Your task to perform on an android device: Clear all items from cart on amazon. Add "panasonic triple a" to the cart on amazon Image 0: 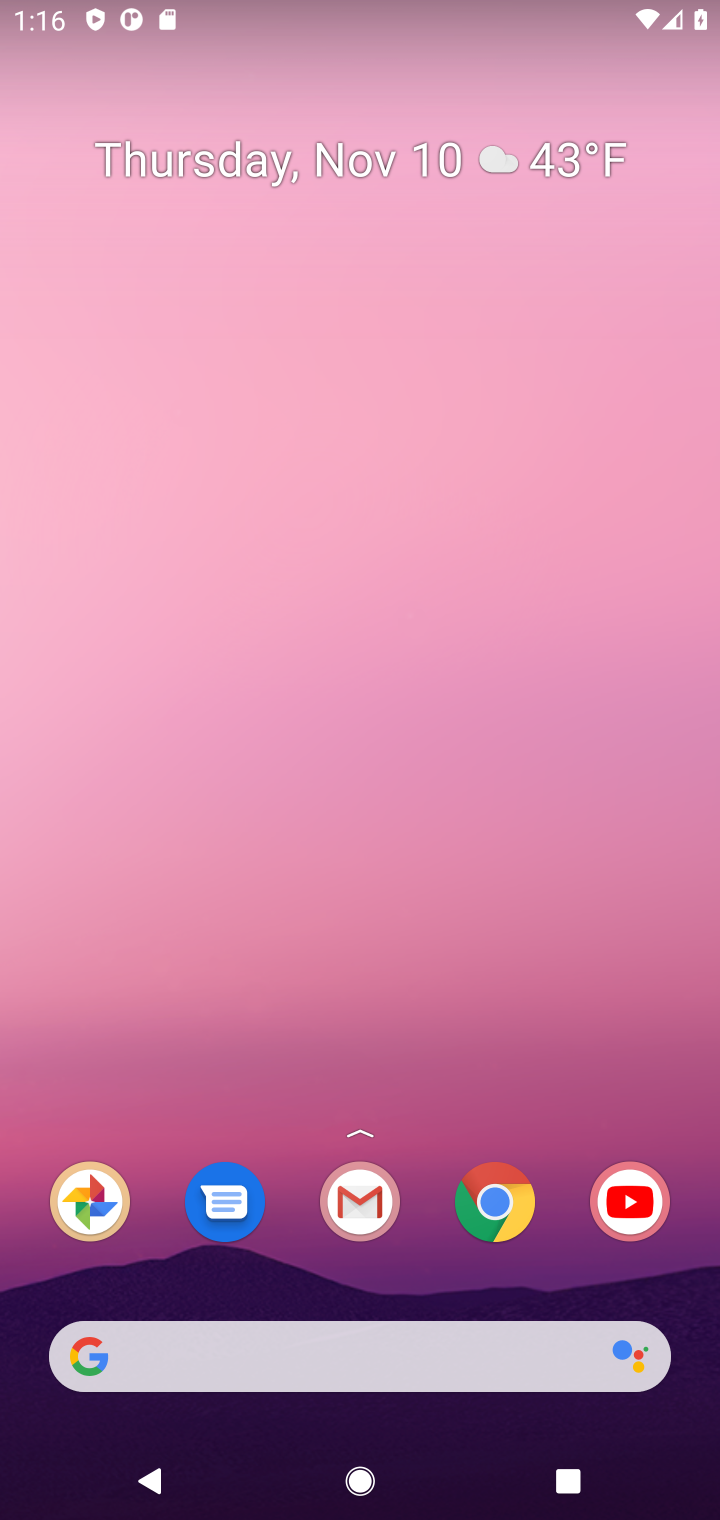
Step 0: click (349, 92)
Your task to perform on an android device: Clear all items from cart on amazon. Add "panasonic triple a" to the cart on amazon Image 1: 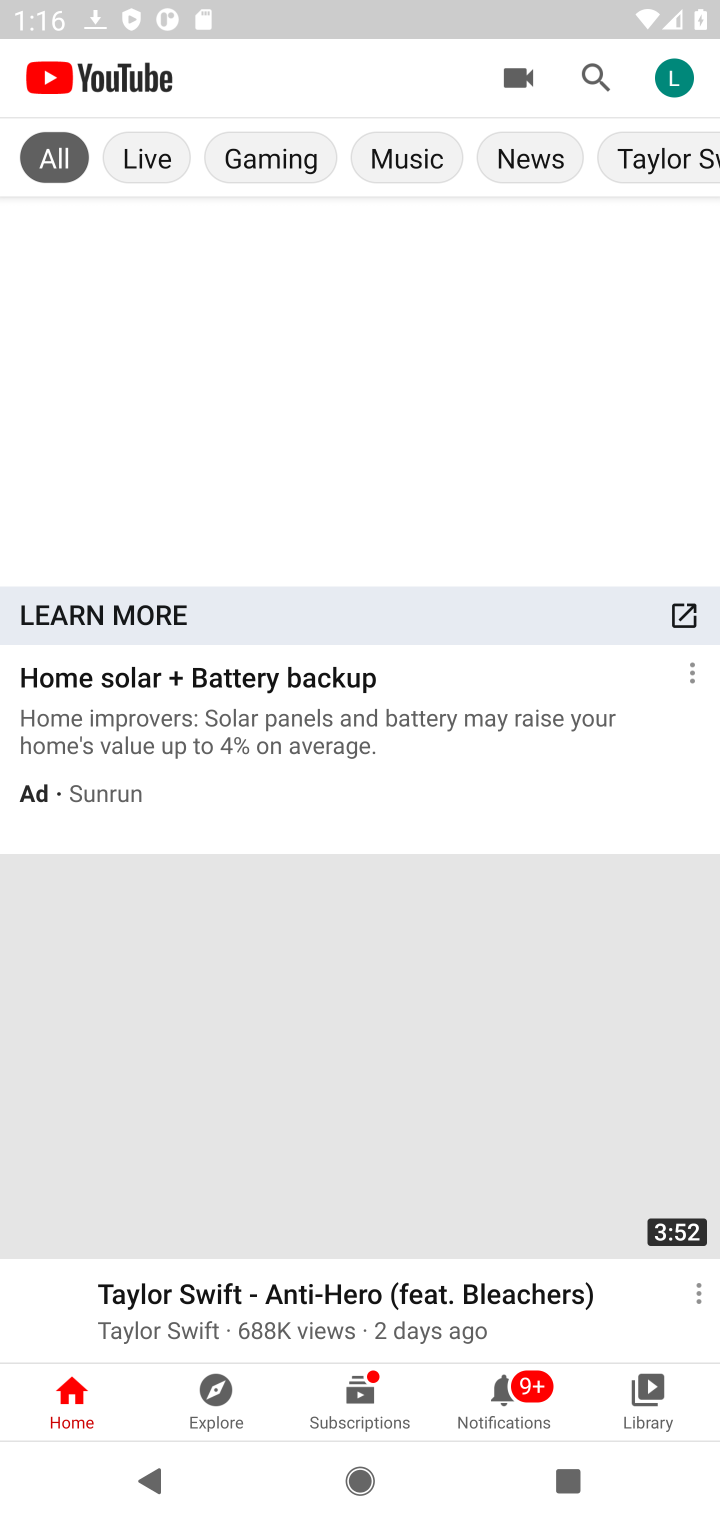
Step 1: press home button
Your task to perform on an android device: Clear all items from cart on amazon. Add "panasonic triple a" to the cart on amazon Image 2: 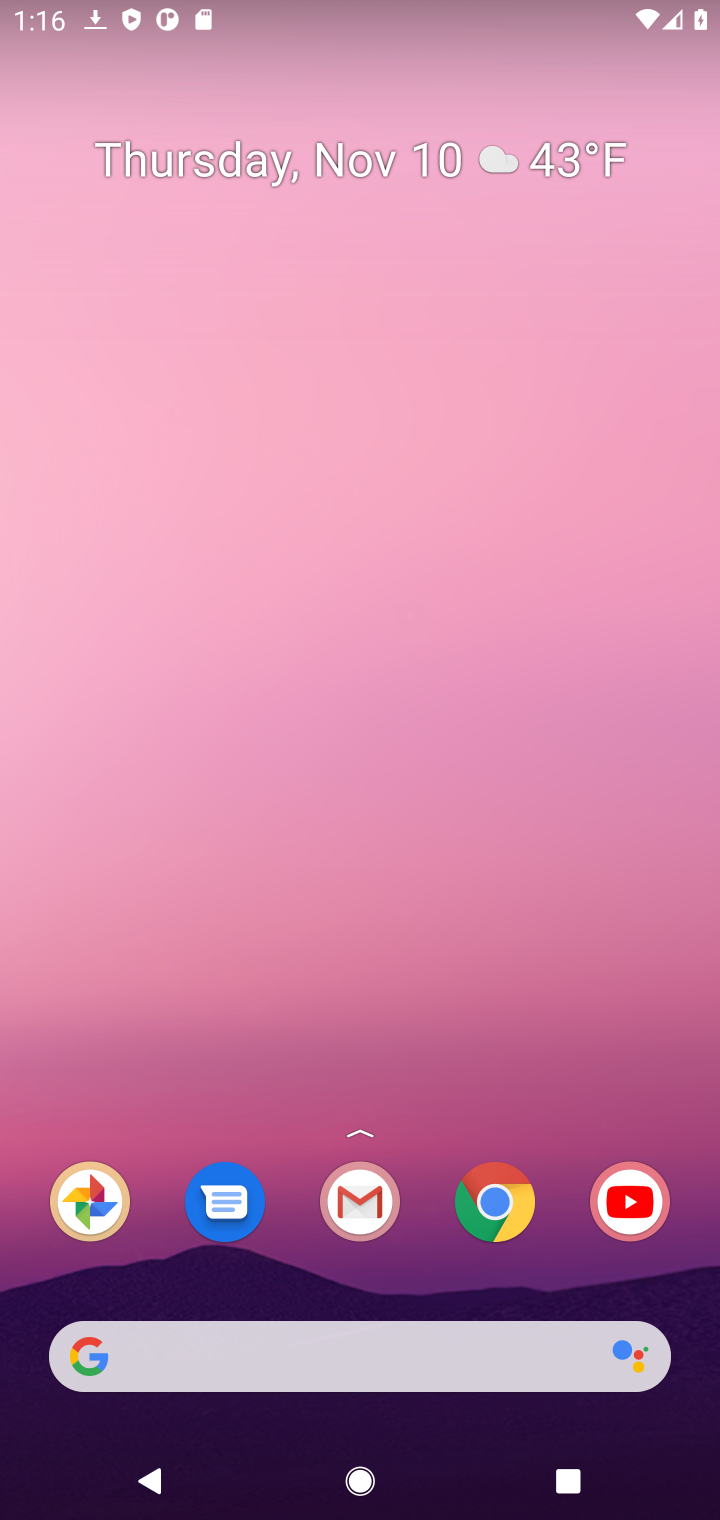
Step 2: click (486, 1193)
Your task to perform on an android device: Clear all items from cart on amazon. Add "panasonic triple a" to the cart on amazon Image 3: 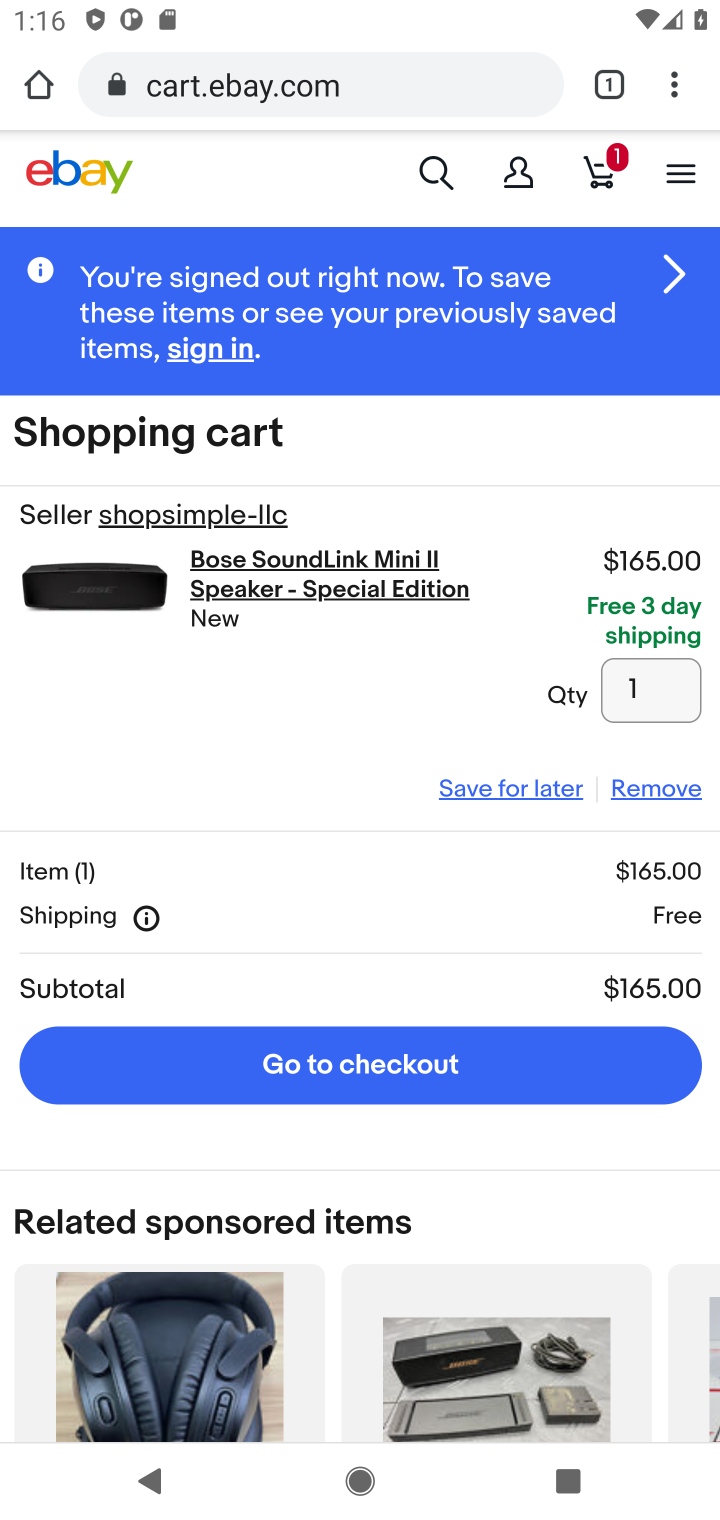
Step 3: click (459, 74)
Your task to perform on an android device: Clear all items from cart on amazon. Add "panasonic triple a" to the cart on amazon Image 4: 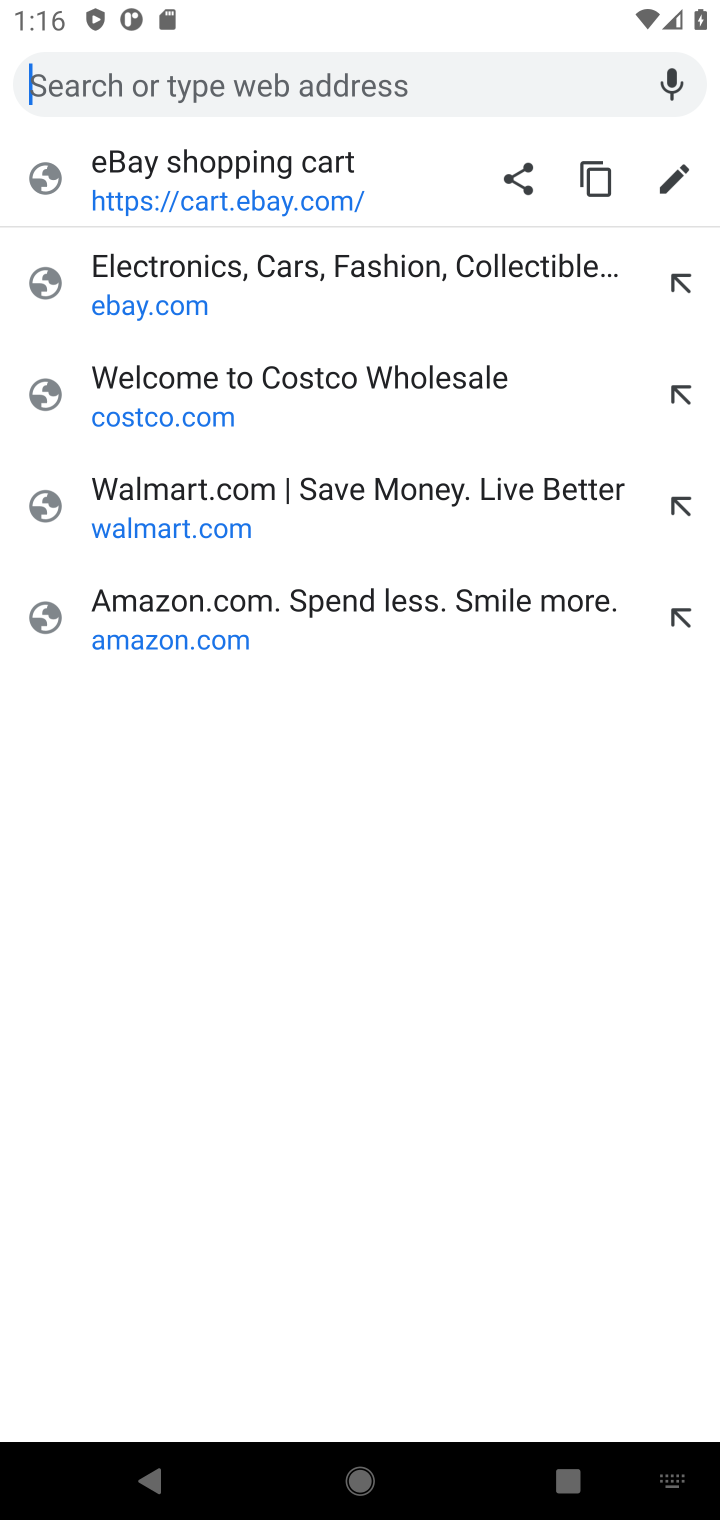
Step 4: type "amazon"
Your task to perform on an android device: Clear all items from cart on amazon. Add "panasonic triple a" to the cart on amazon Image 5: 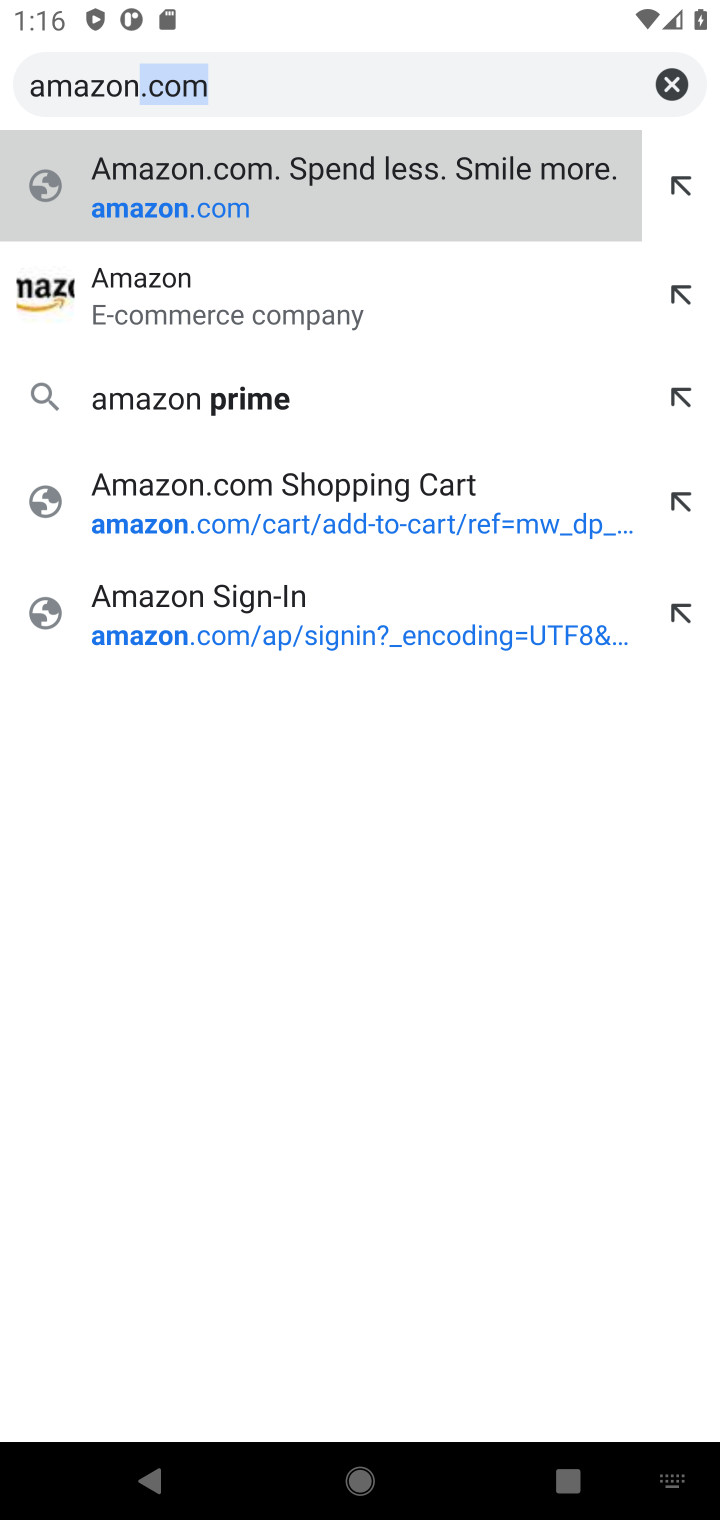
Step 5: click (488, 92)
Your task to perform on an android device: Clear all items from cart on amazon. Add "panasonic triple a" to the cart on amazon Image 6: 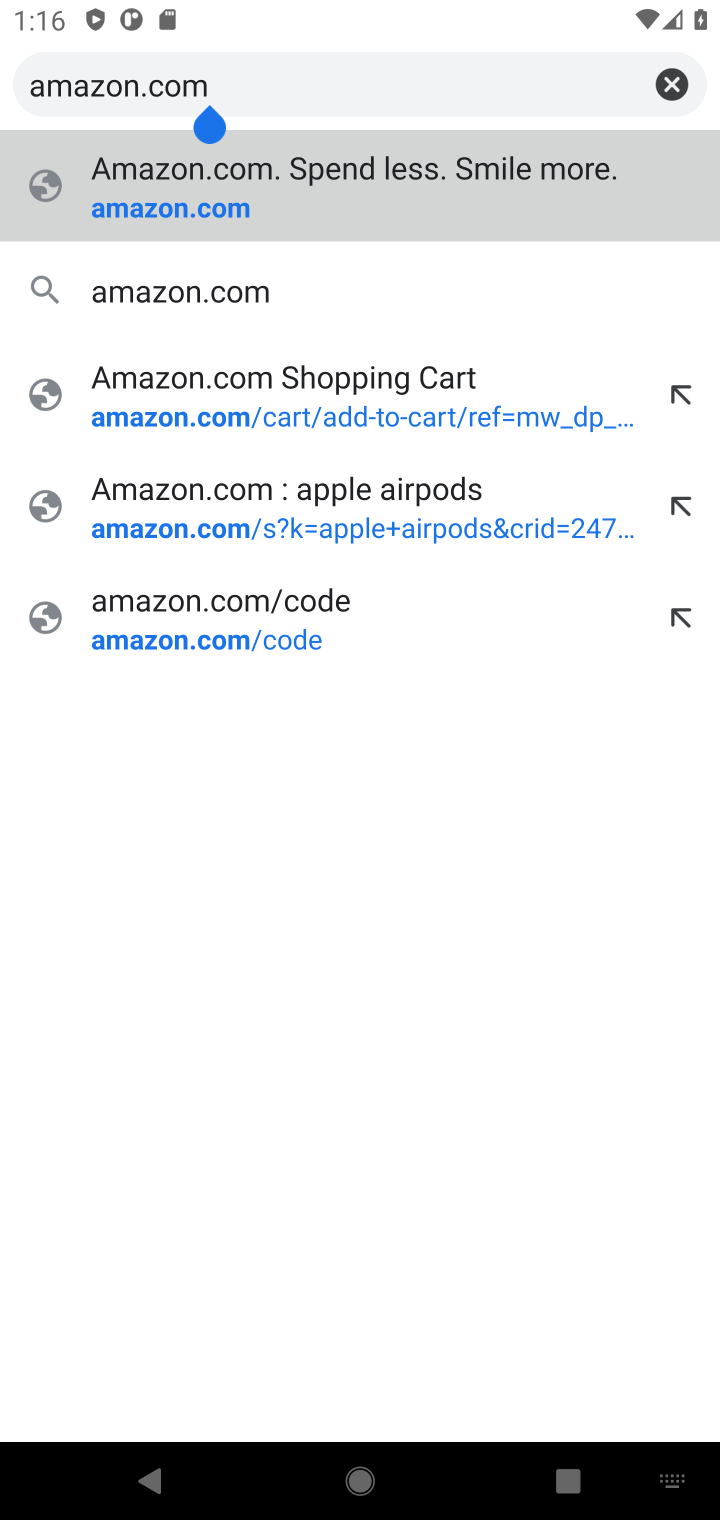
Step 6: click (260, 288)
Your task to perform on an android device: Clear all items from cart on amazon. Add "panasonic triple a" to the cart on amazon Image 7: 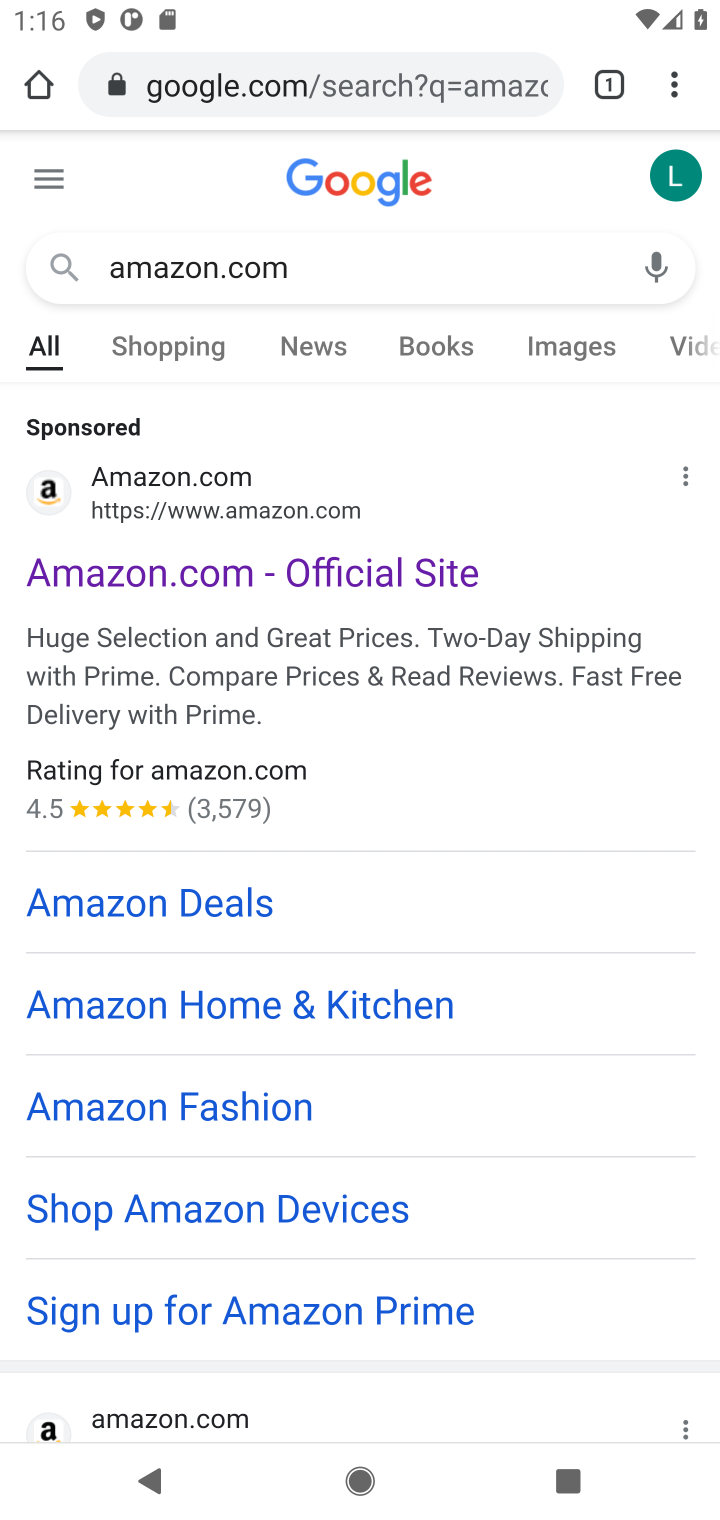
Step 7: click (285, 507)
Your task to perform on an android device: Clear all items from cart on amazon. Add "panasonic triple a" to the cart on amazon Image 8: 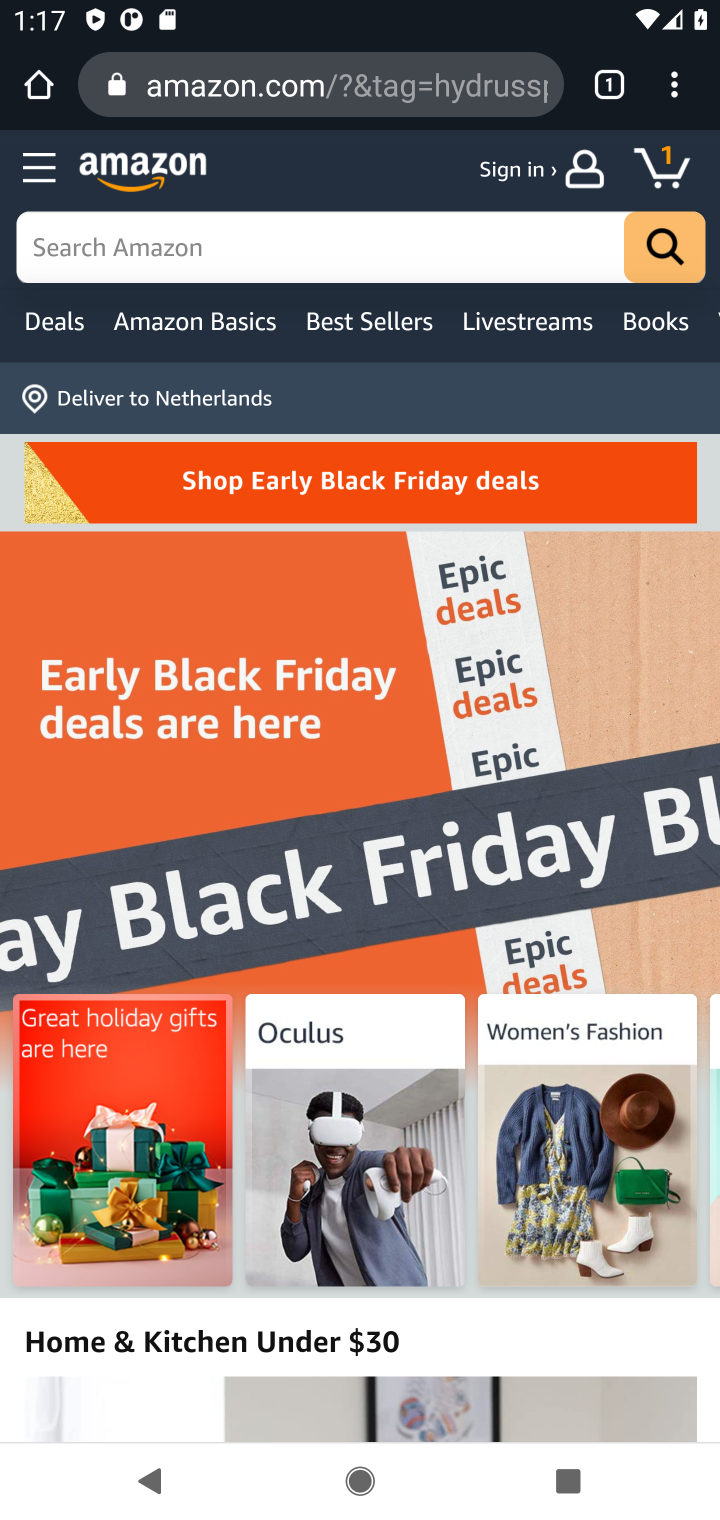
Step 8: click (666, 175)
Your task to perform on an android device: Clear all items from cart on amazon. Add "panasonic triple a" to the cart on amazon Image 9: 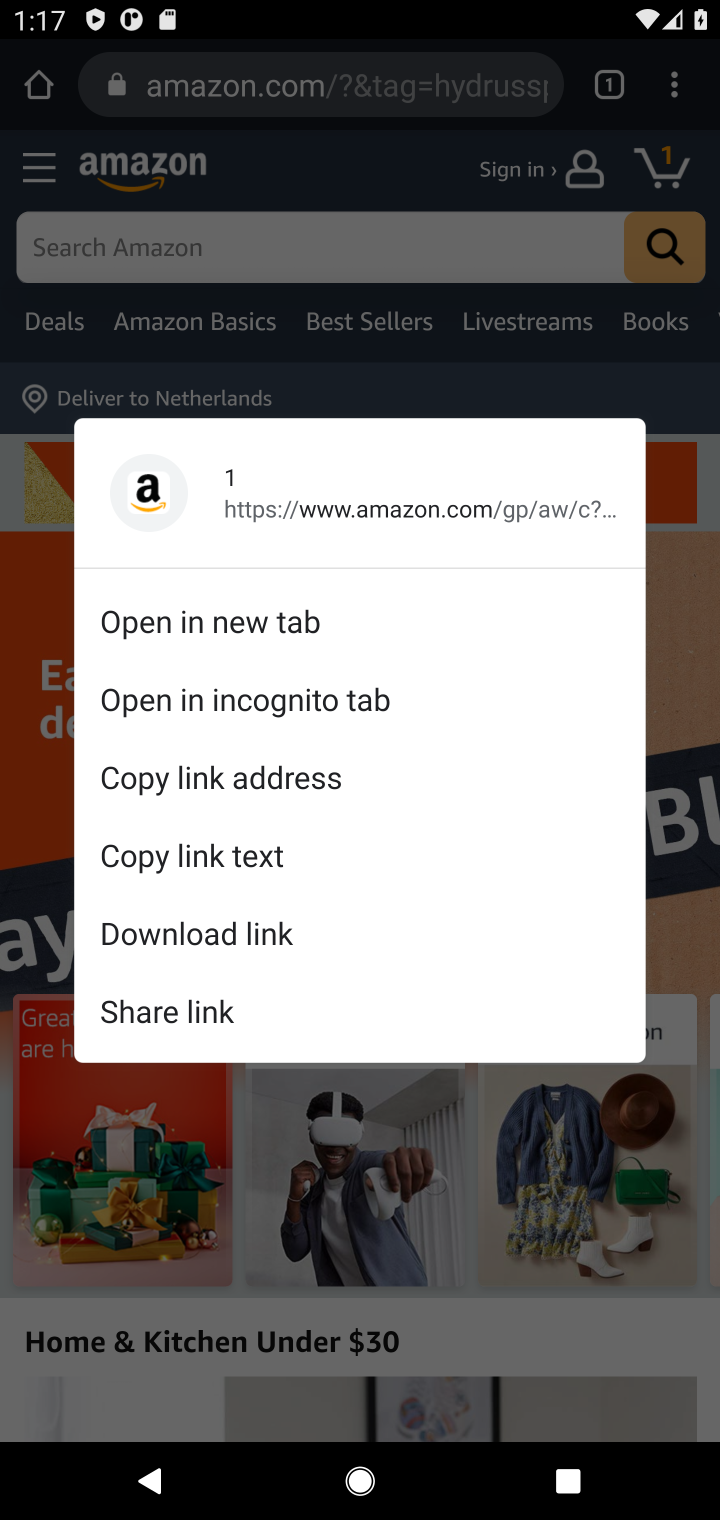
Step 9: click (652, 165)
Your task to perform on an android device: Clear all items from cart on amazon. Add "panasonic triple a" to the cart on amazon Image 10: 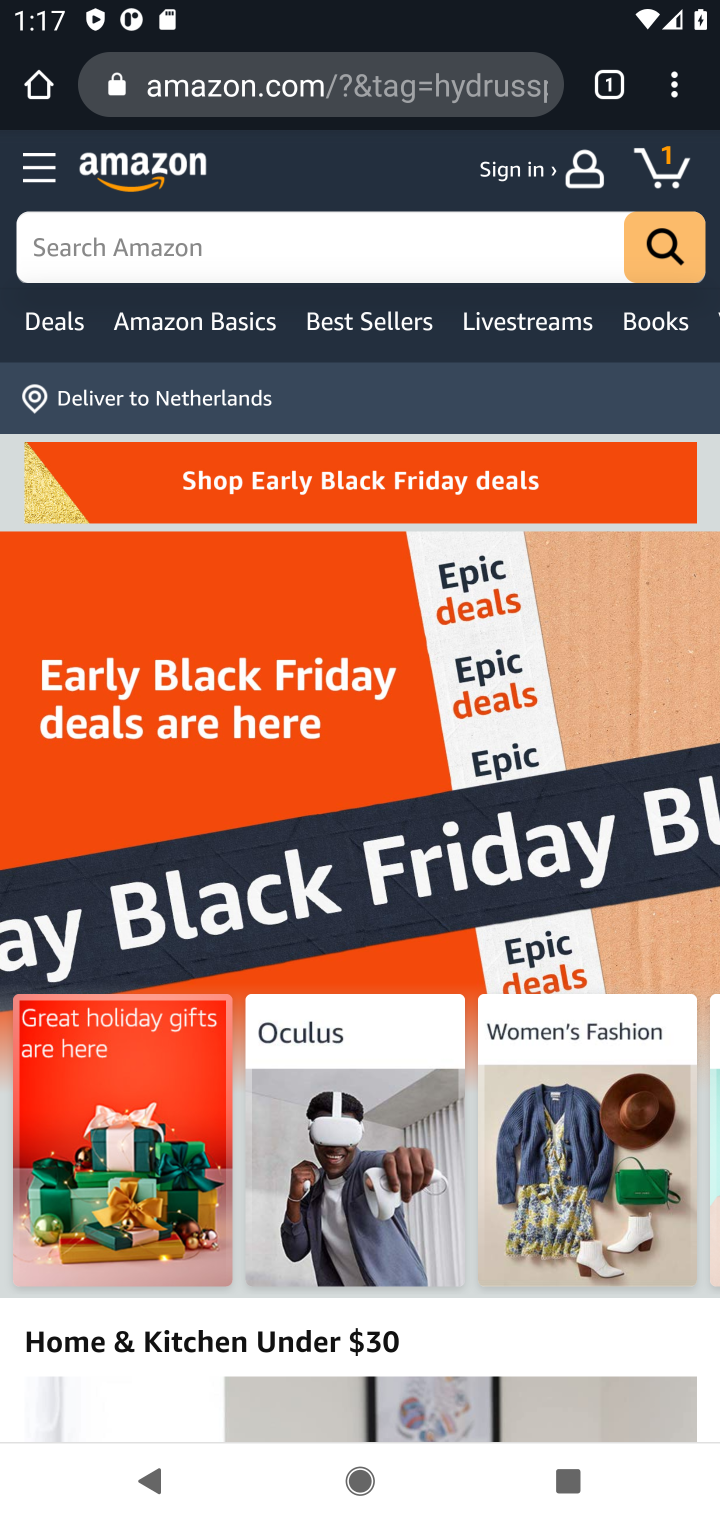
Step 10: click (661, 161)
Your task to perform on an android device: Clear all items from cart on amazon. Add "panasonic triple a" to the cart on amazon Image 11: 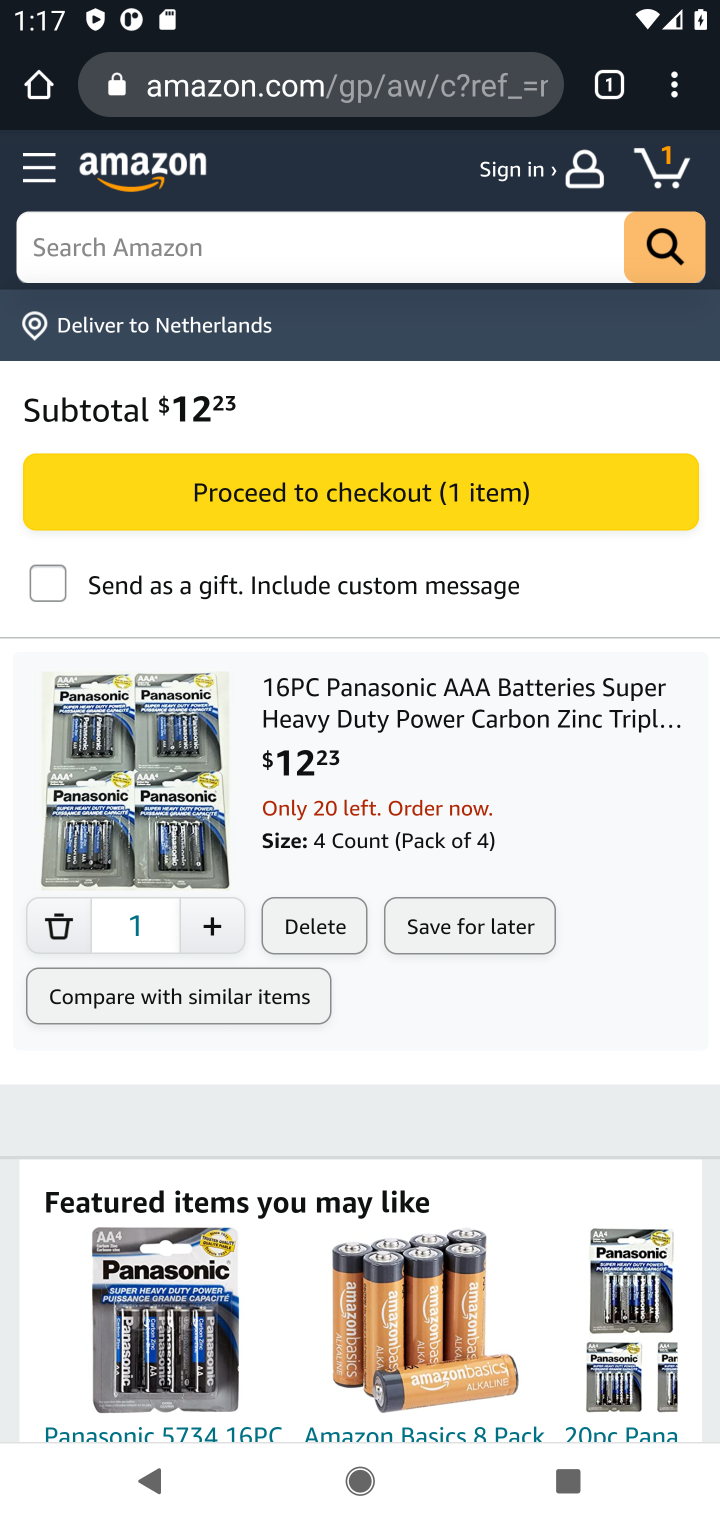
Step 11: click (319, 924)
Your task to perform on an android device: Clear all items from cart on amazon. Add "panasonic triple a" to the cart on amazon Image 12: 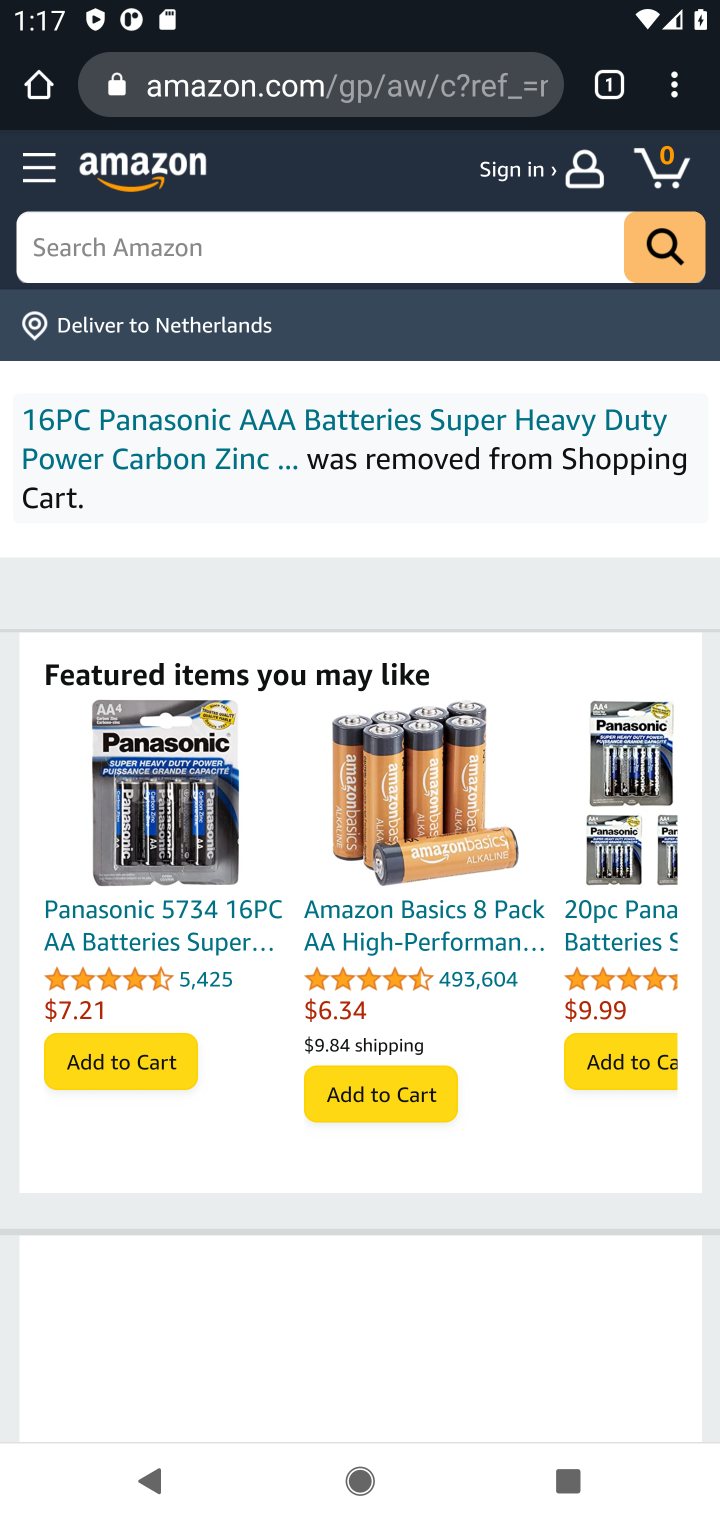
Step 12: click (540, 252)
Your task to perform on an android device: Clear all items from cart on amazon. Add "panasonic triple a" to the cart on amazon Image 13: 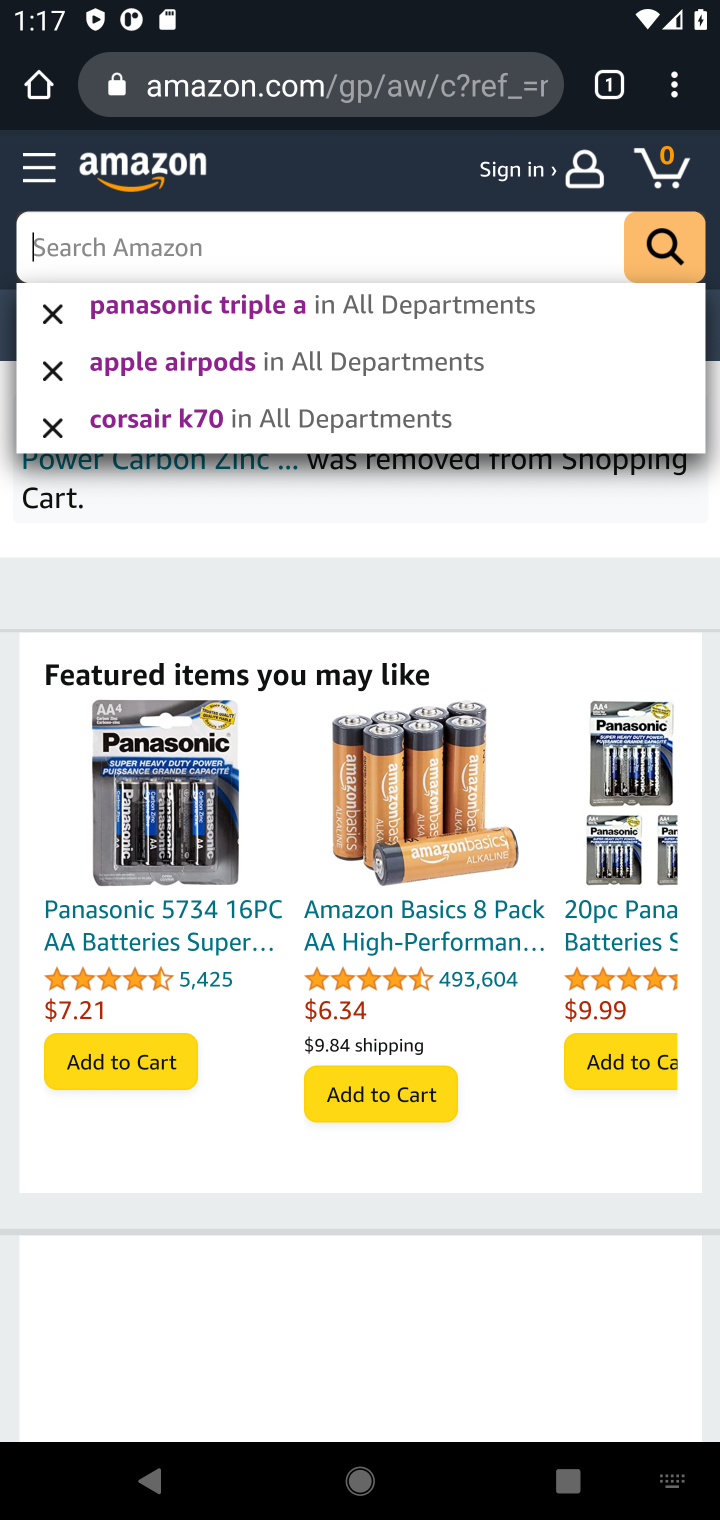
Step 13: type "panasonic triple a"
Your task to perform on an android device: Clear all items from cart on amazon. Add "panasonic triple a" to the cart on amazon Image 14: 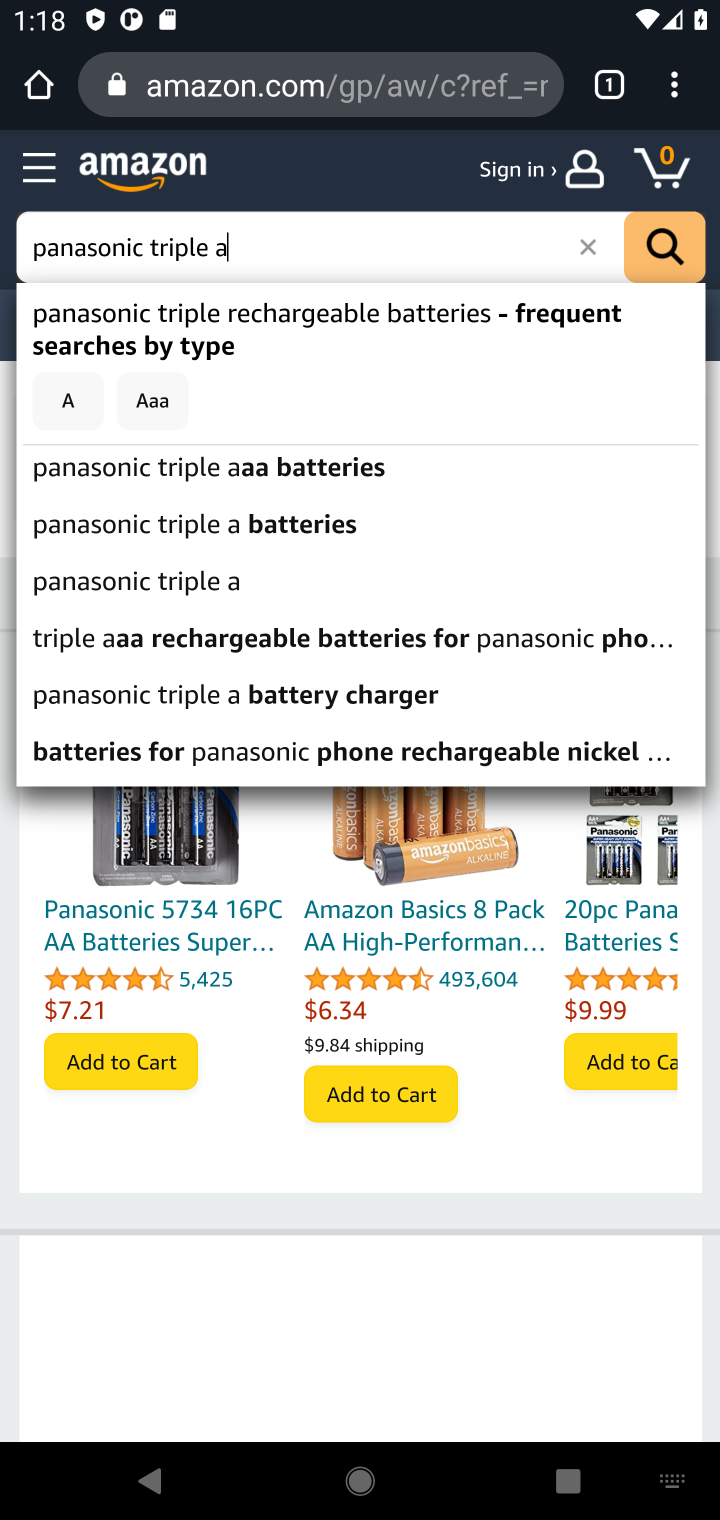
Step 14: click (227, 574)
Your task to perform on an android device: Clear all items from cart on amazon. Add "panasonic triple a" to the cart on amazon Image 15: 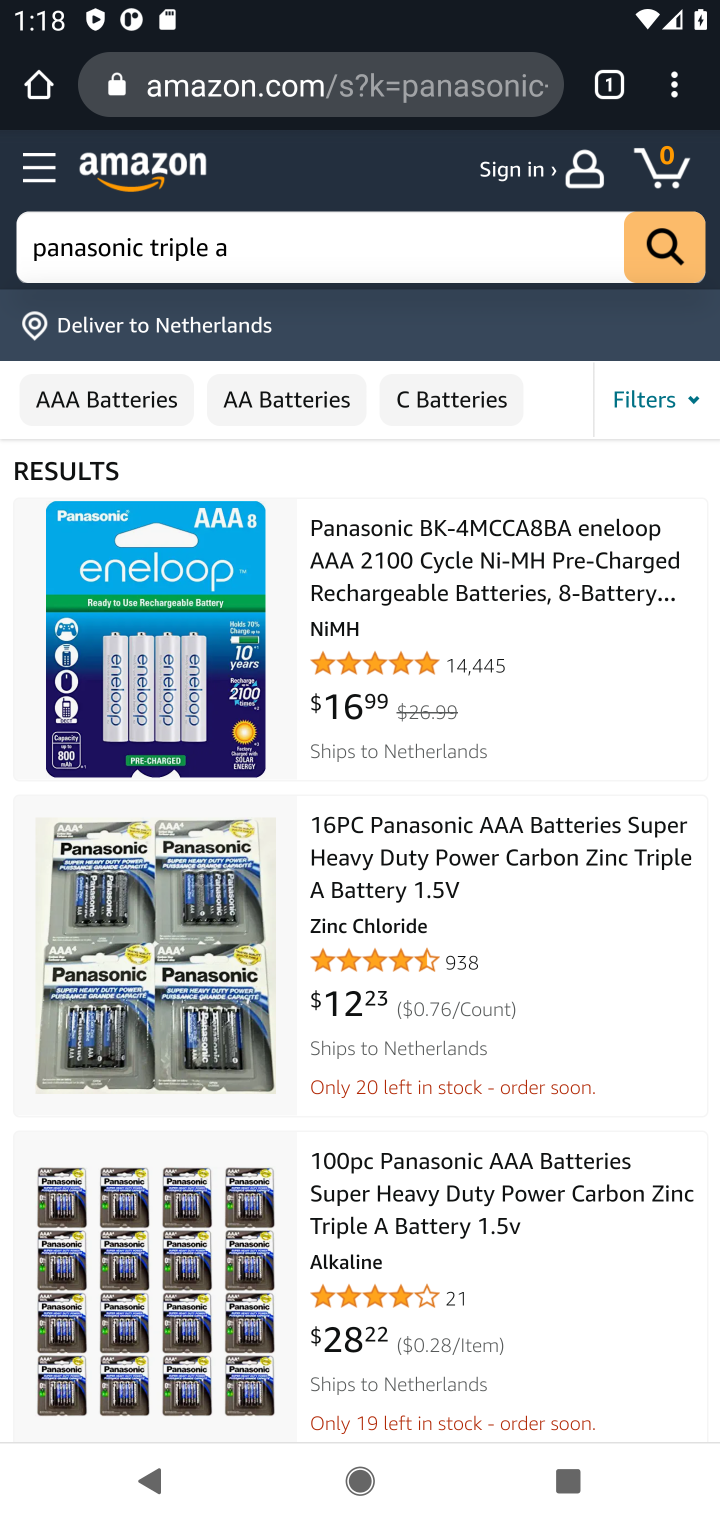
Step 15: click (168, 910)
Your task to perform on an android device: Clear all items from cart on amazon. Add "panasonic triple a" to the cart on amazon Image 16: 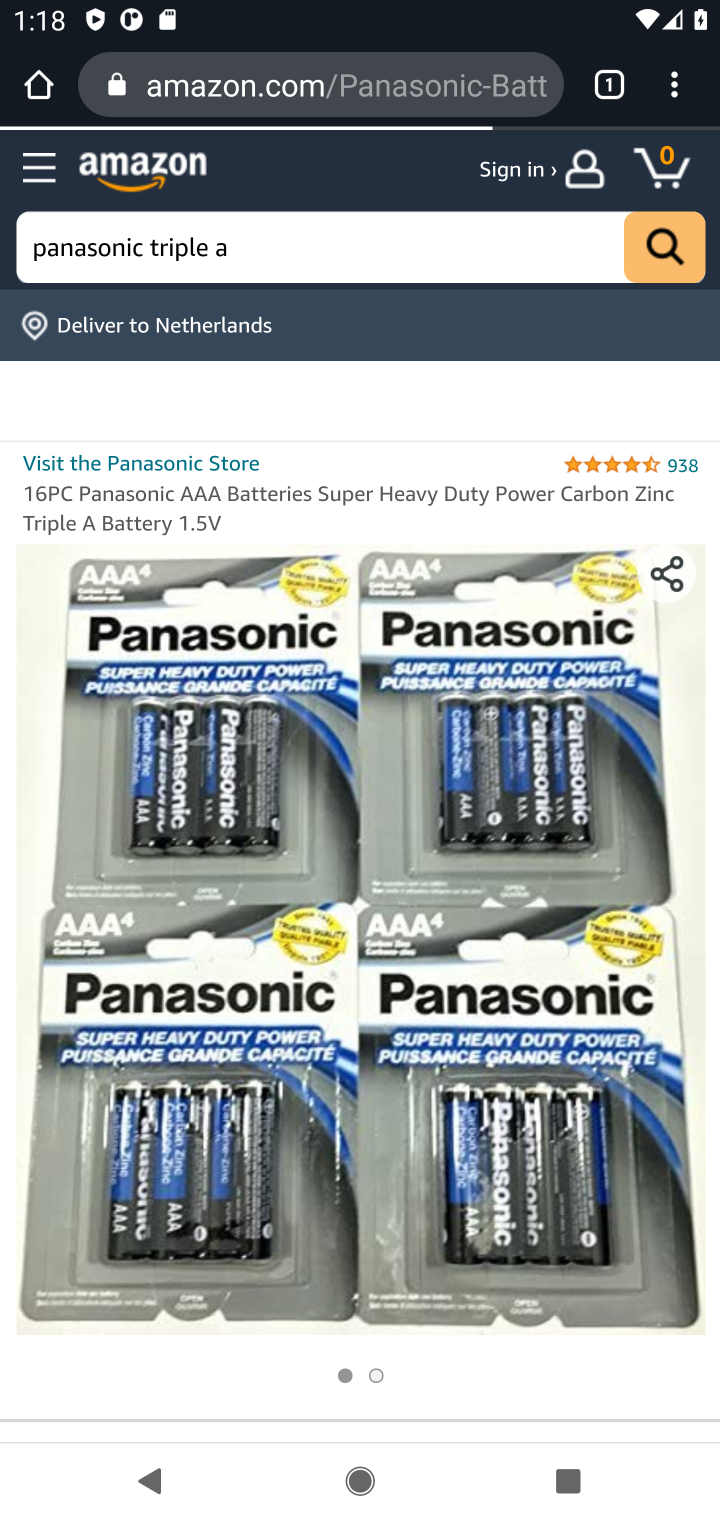
Step 16: drag from (547, 665) to (575, 593)
Your task to perform on an android device: Clear all items from cart on amazon. Add "panasonic triple a" to the cart on amazon Image 17: 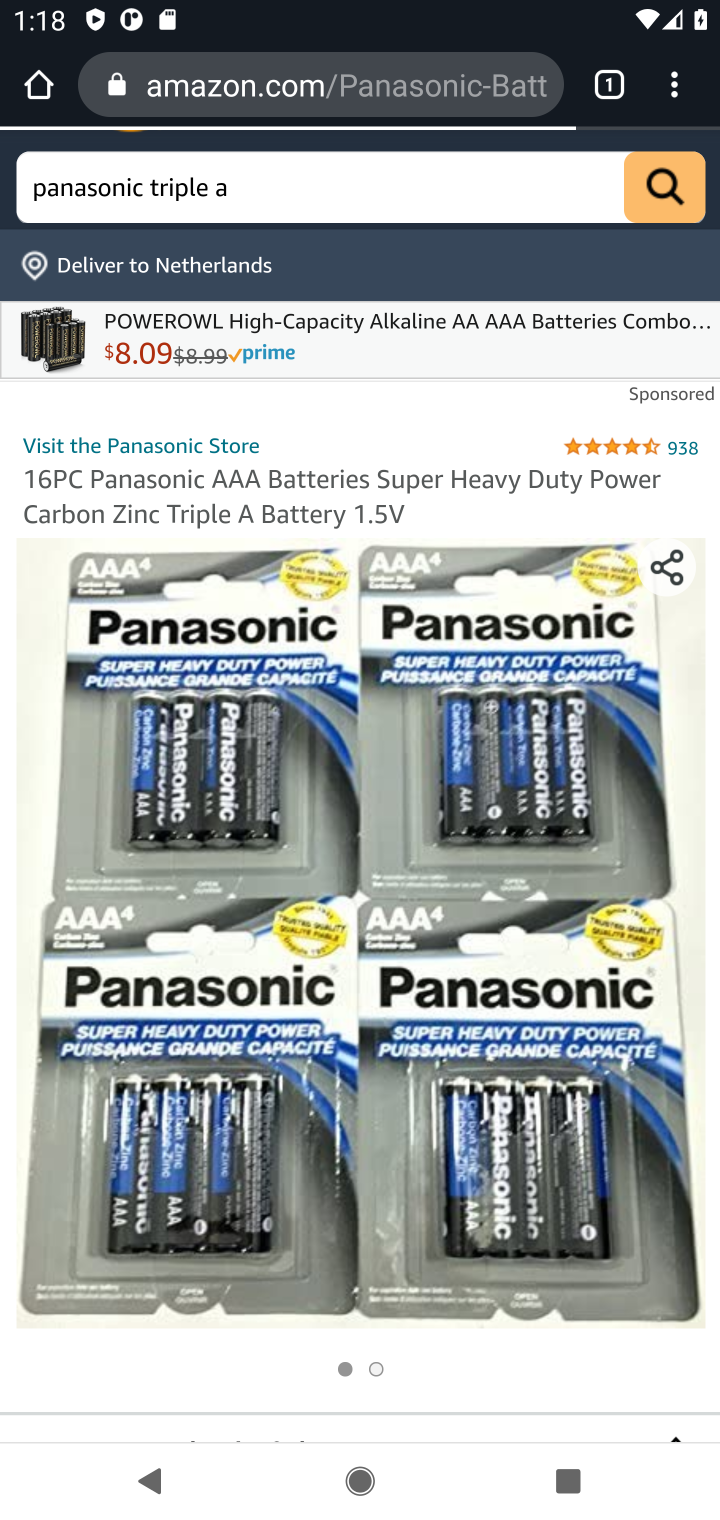
Step 17: drag from (484, 915) to (489, 715)
Your task to perform on an android device: Clear all items from cart on amazon. Add "panasonic triple a" to the cart on amazon Image 18: 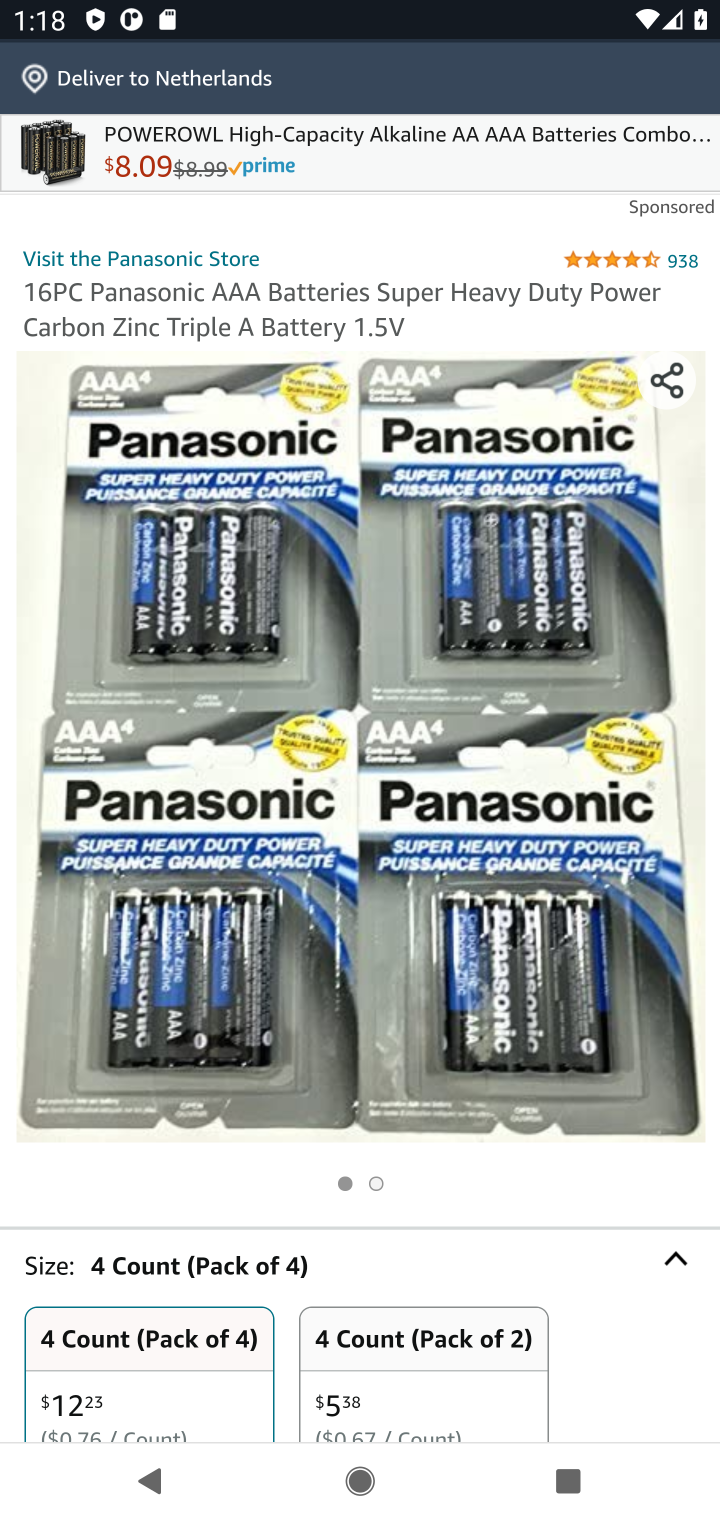
Step 18: drag from (523, 1195) to (505, 498)
Your task to perform on an android device: Clear all items from cart on amazon. Add "panasonic triple a" to the cart on amazon Image 19: 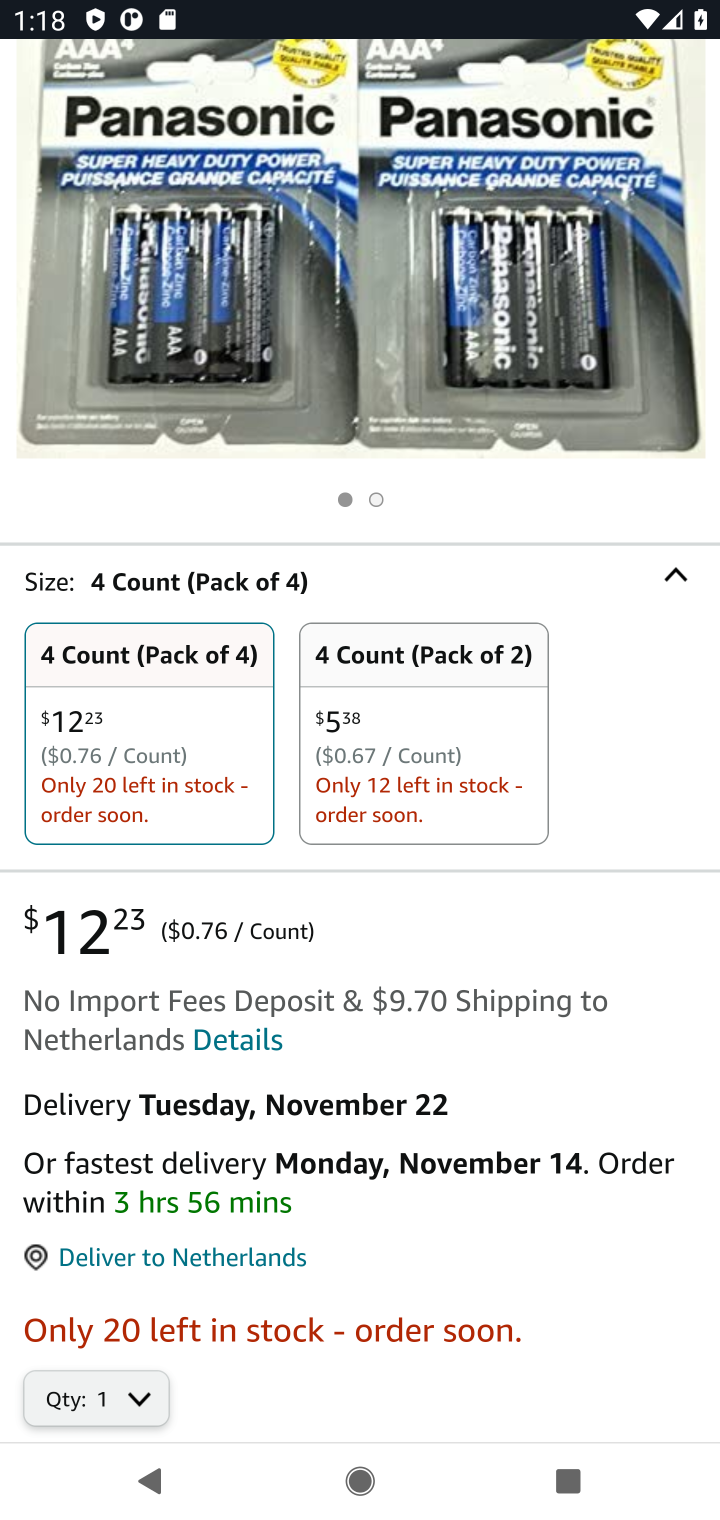
Step 19: drag from (560, 1078) to (465, 547)
Your task to perform on an android device: Clear all items from cart on amazon. Add "panasonic triple a" to the cart on amazon Image 20: 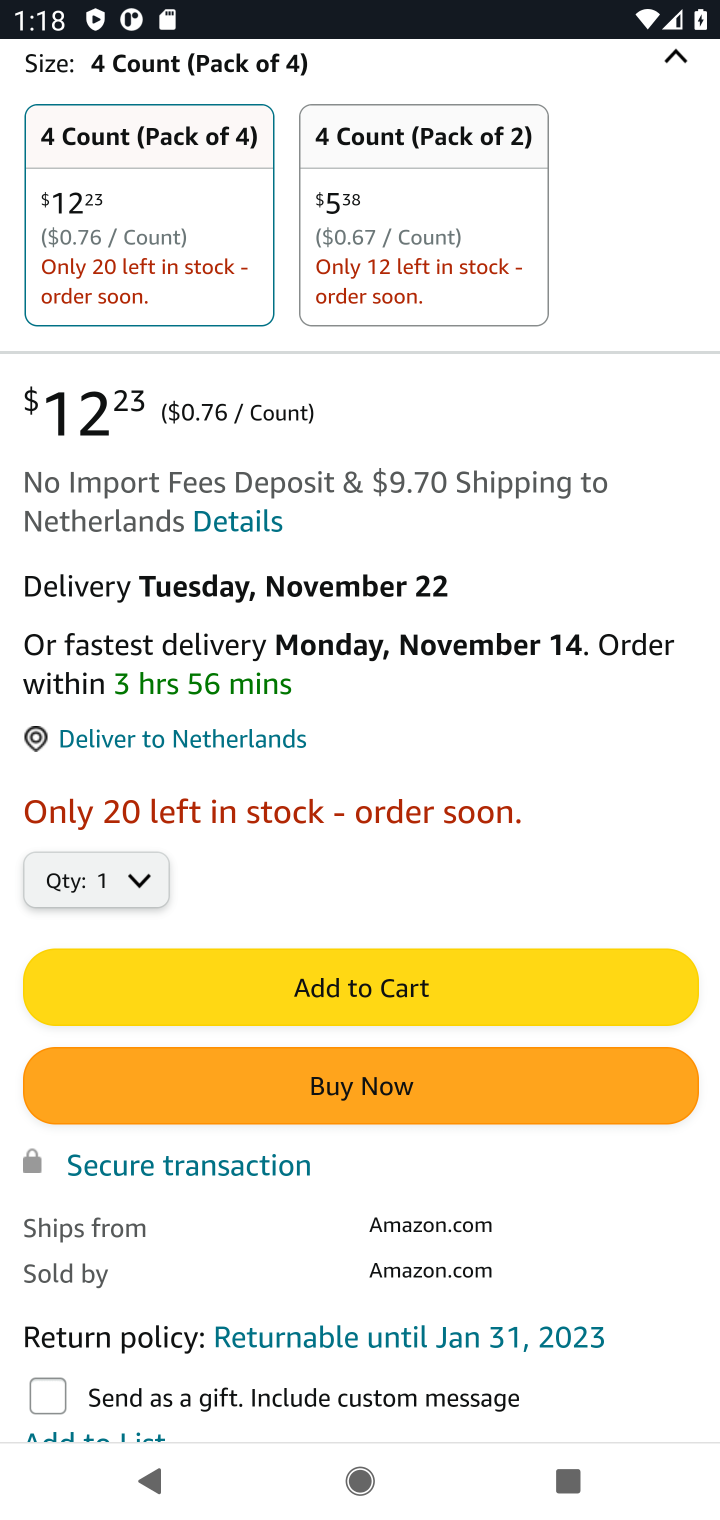
Step 20: click (375, 976)
Your task to perform on an android device: Clear all items from cart on amazon. Add "panasonic triple a" to the cart on amazon Image 21: 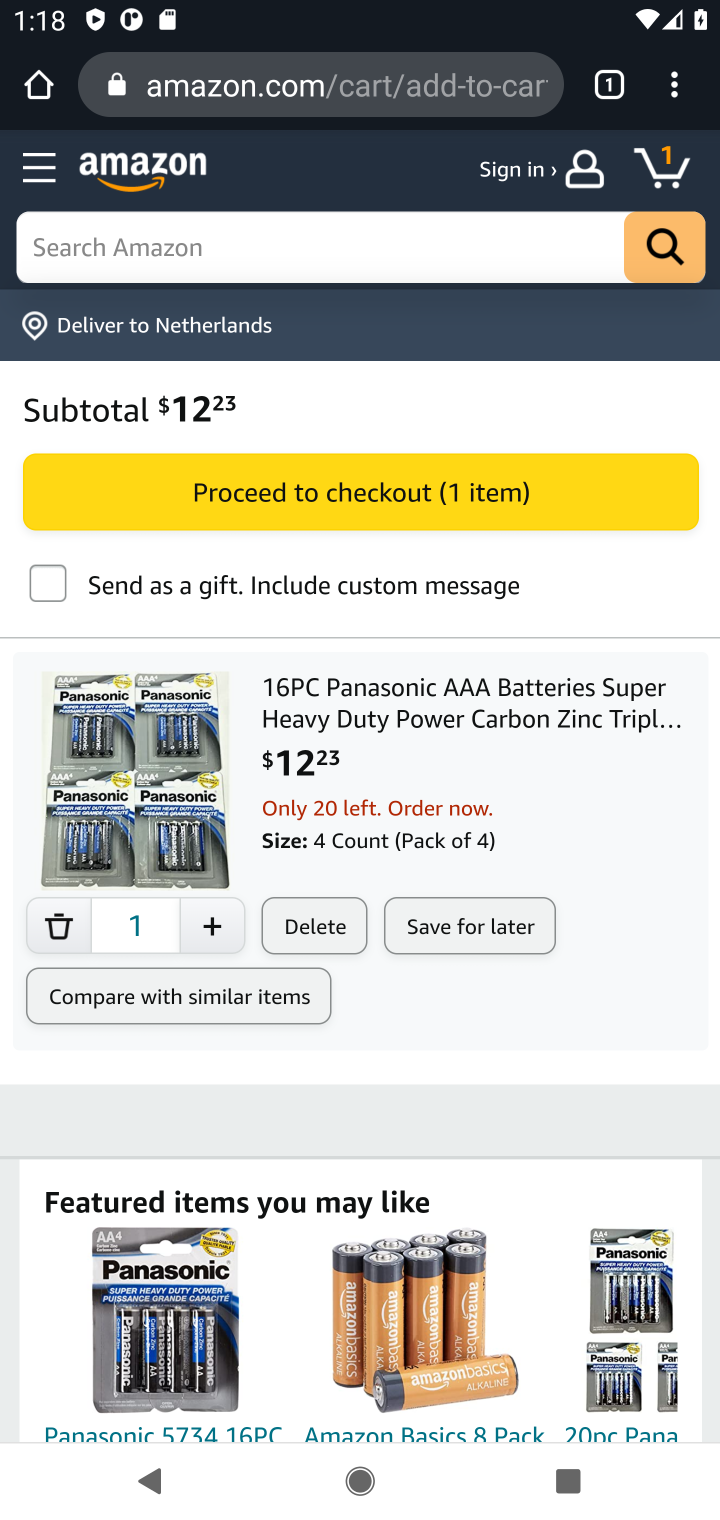
Step 21: task complete